Your task to perform on an android device: Go to ESPN.com Image 0: 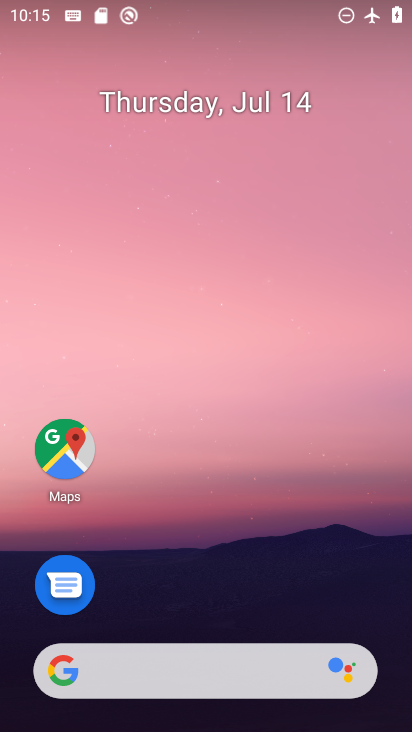
Step 0: drag from (184, 640) to (217, 51)
Your task to perform on an android device: Go to ESPN.com Image 1: 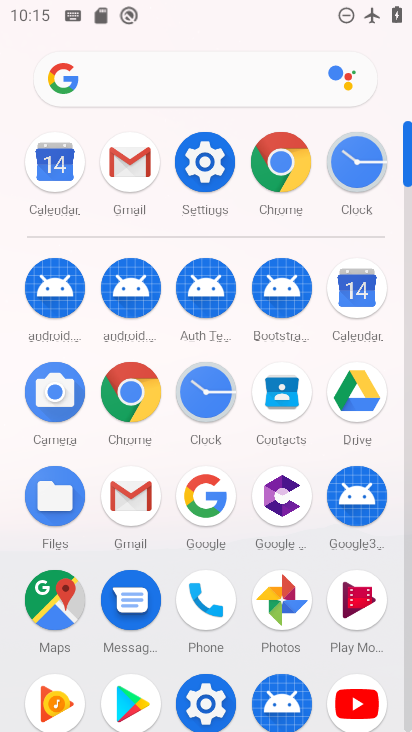
Step 1: click (146, 406)
Your task to perform on an android device: Go to ESPN.com Image 2: 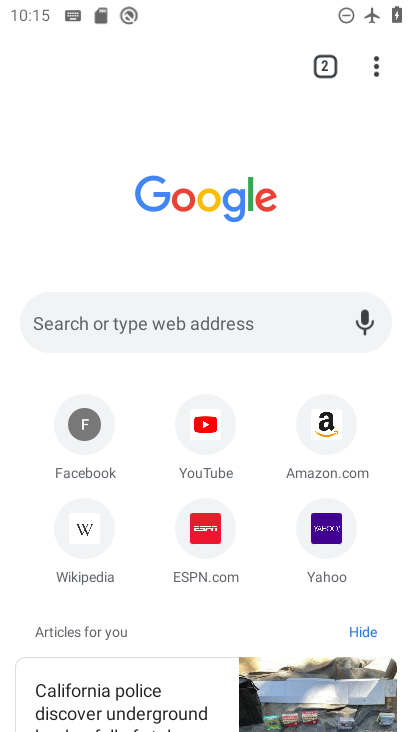
Step 2: click (198, 536)
Your task to perform on an android device: Go to ESPN.com Image 3: 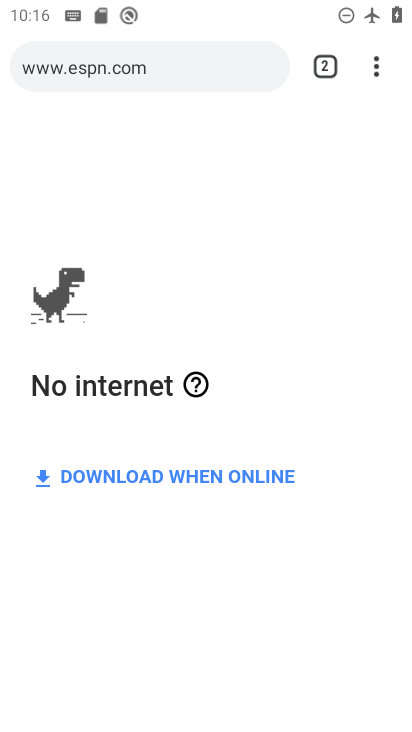
Step 3: task complete